Your task to perform on an android device: Turn on the flashlight Image 0: 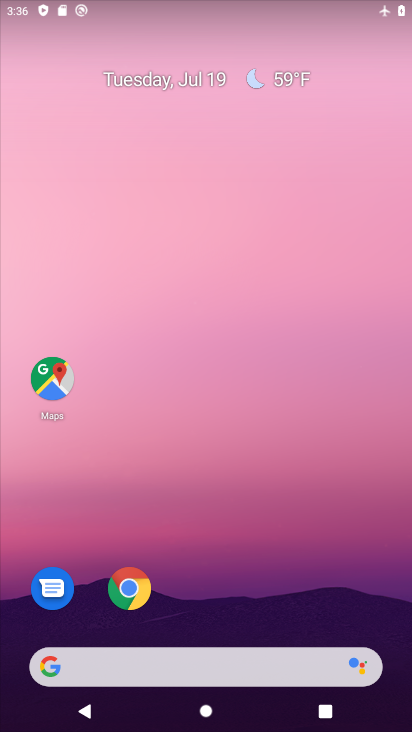
Step 0: press home button
Your task to perform on an android device: Turn on the flashlight Image 1: 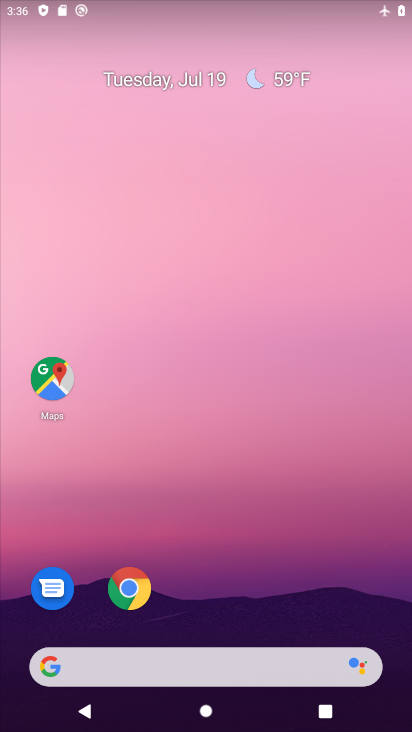
Step 1: task complete